Your task to perform on an android device: Add "apple airpods" to the cart on newegg, then select checkout. Image 0: 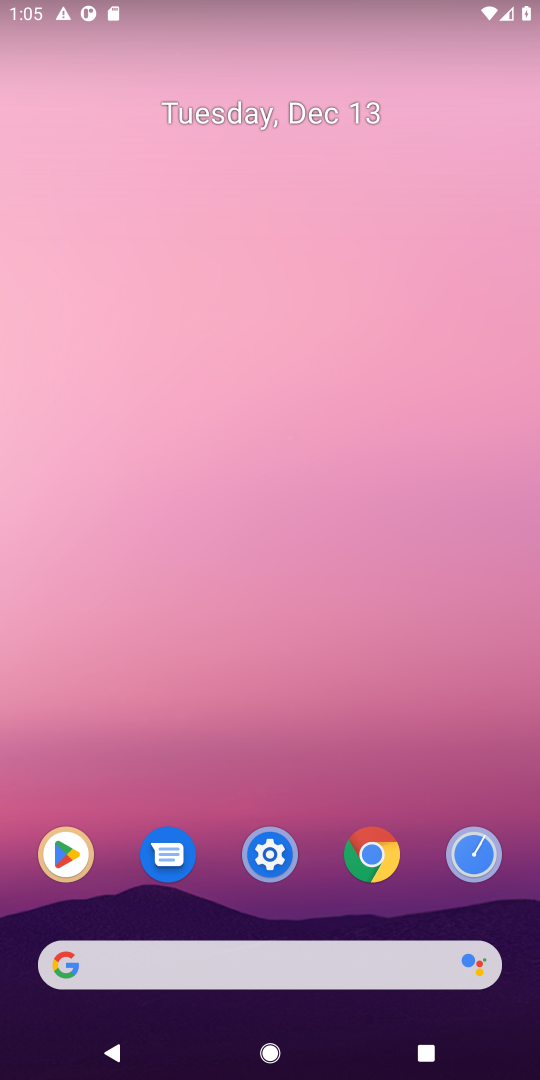
Step 0: click (287, 950)
Your task to perform on an android device: Add "apple airpods" to the cart on newegg, then select checkout. Image 1: 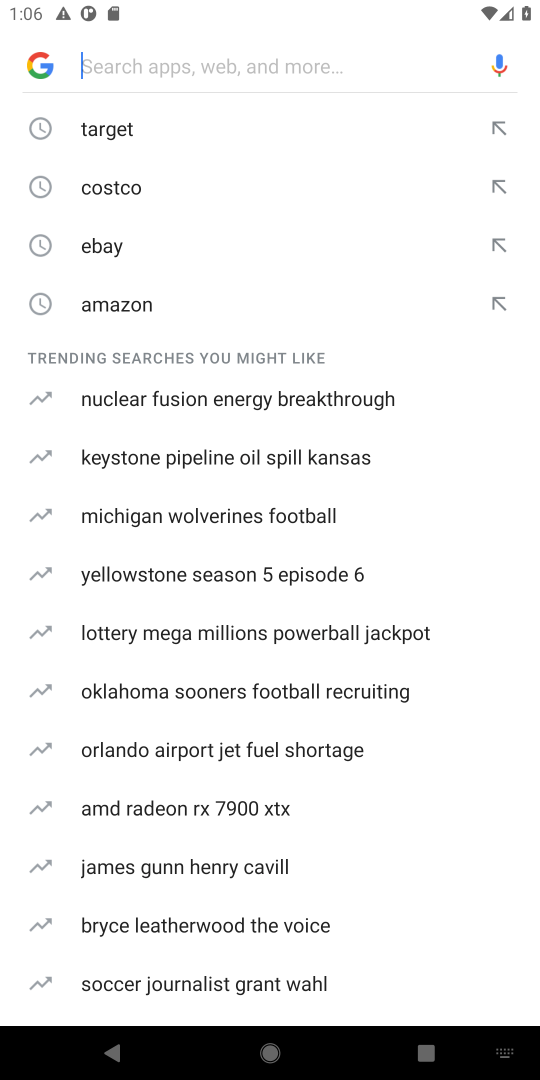
Step 1: type "neweg"
Your task to perform on an android device: Add "apple airpods" to the cart on newegg, then select checkout. Image 2: 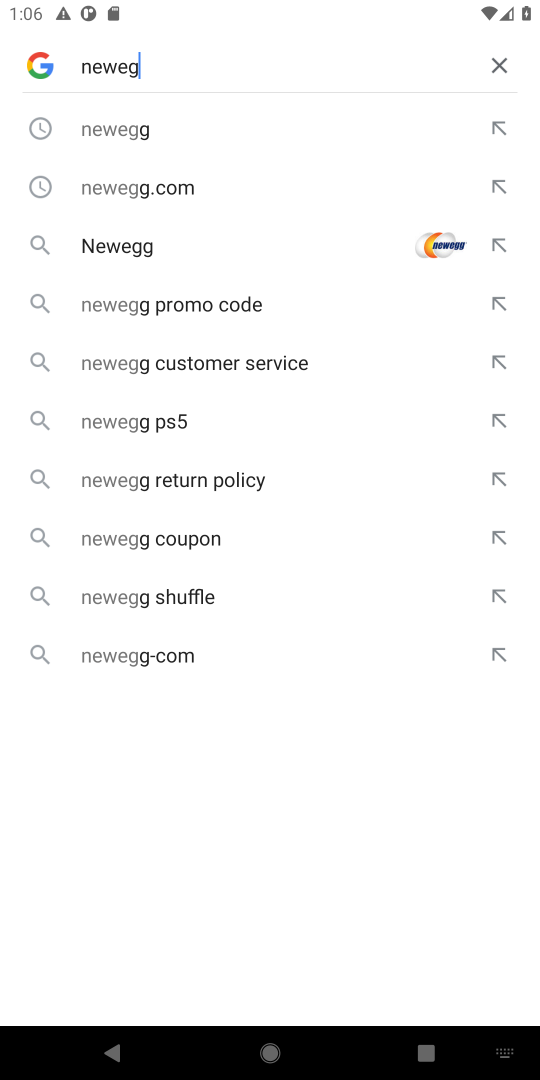
Step 2: click (318, 253)
Your task to perform on an android device: Add "apple airpods" to the cart on newegg, then select checkout. Image 3: 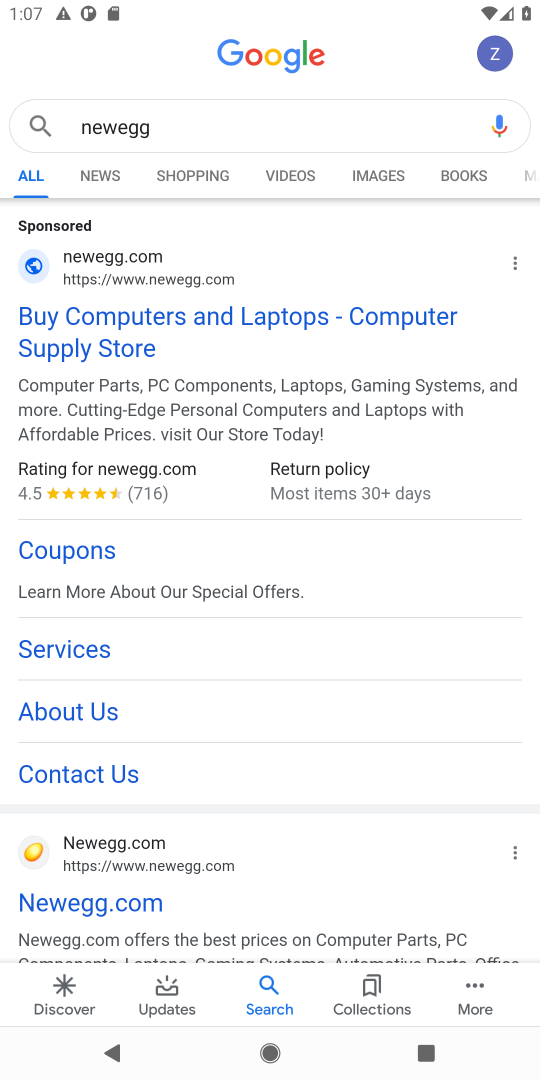
Step 3: click (242, 307)
Your task to perform on an android device: Add "apple airpods" to the cart on newegg, then select checkout. Image 4: 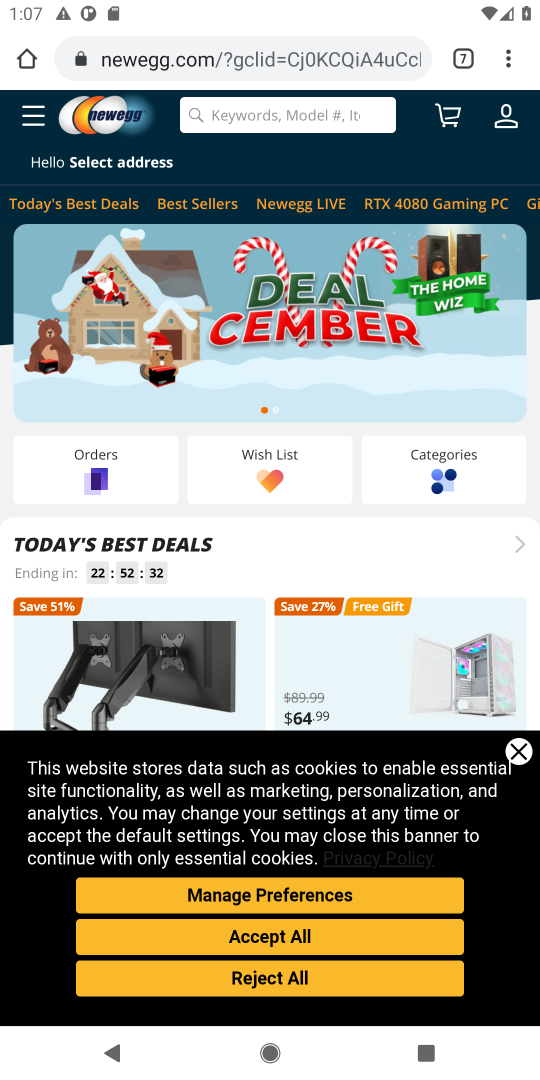
Step 4: task complete